Your task to perform on an android device: toggle wifi Image 0: 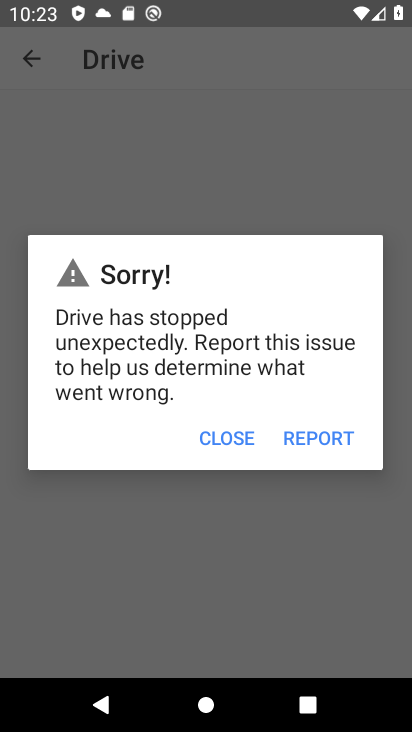
Step 0: press home button
Your task to perform on an android device: toggle wifi Image 1: 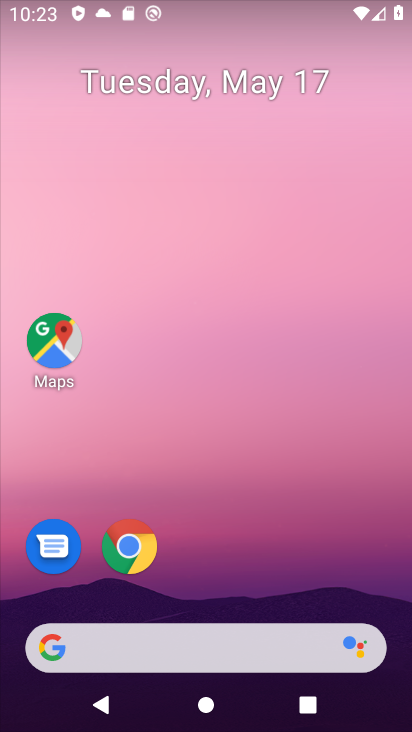
Step 1: drag from (208, 587) to (269, 264)
Your task to perform on an android device: toggle wifi Image 2: 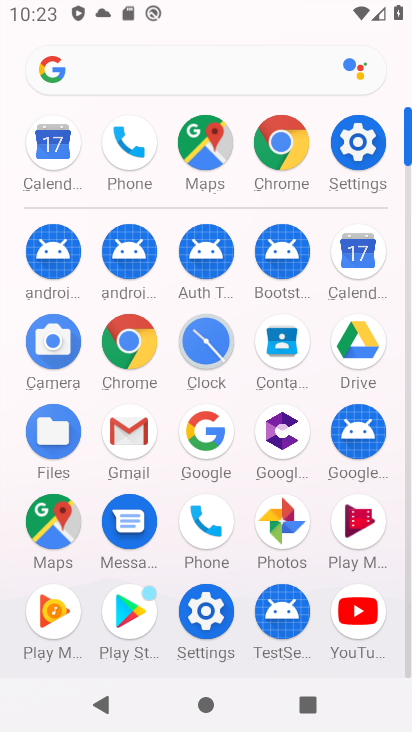
Step 2: click (351, 132)
Your task to perform on an android device: toggle wifi Image 3: 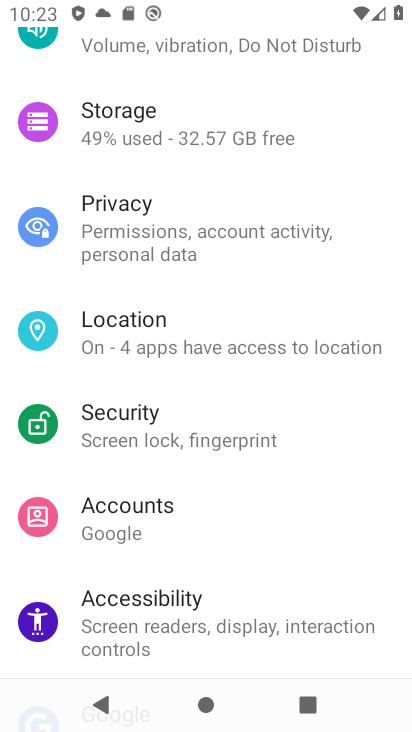
Step 3: drag from (207, 131) to (166, 645)
Your task to perform on an android device: toggle wifi Image 4: 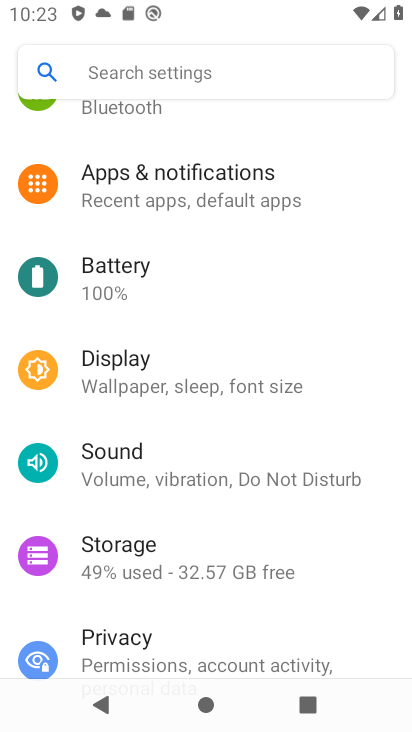
Step 4: drag from (201, 153) to (179, 621)
Your task to perform on an android device: toggle wifi Image 5: 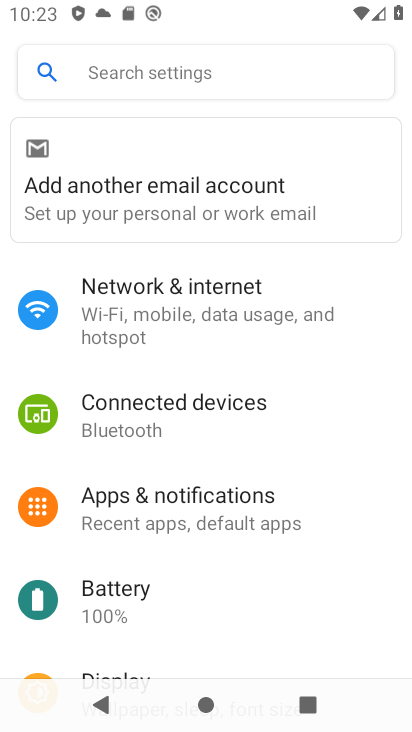
Step 5: click (159, 293)
Your task to perform on an android device: toggle wifi Image 6: 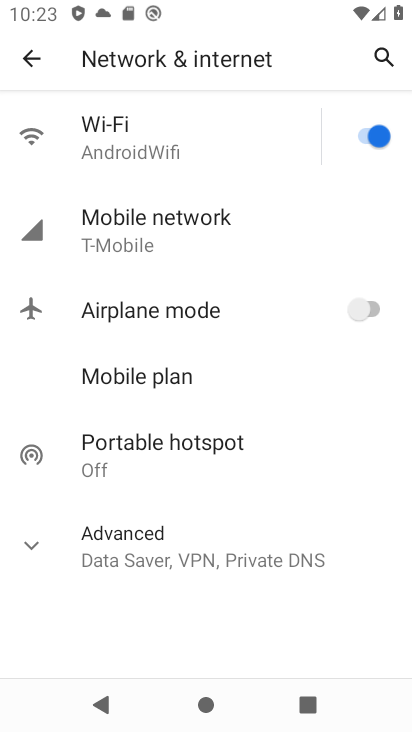
Step 6: click (195, 144)
Your task to perform on an android device: toggle wifi Image 7: 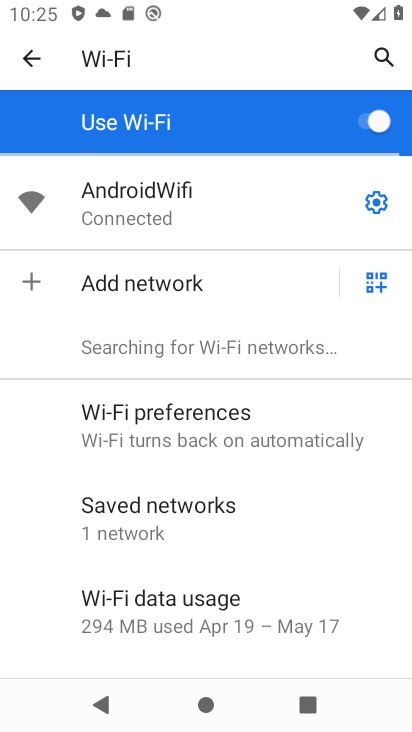
Step 7: task complete